Your task to perform on an android device: Open eBay Image 0: 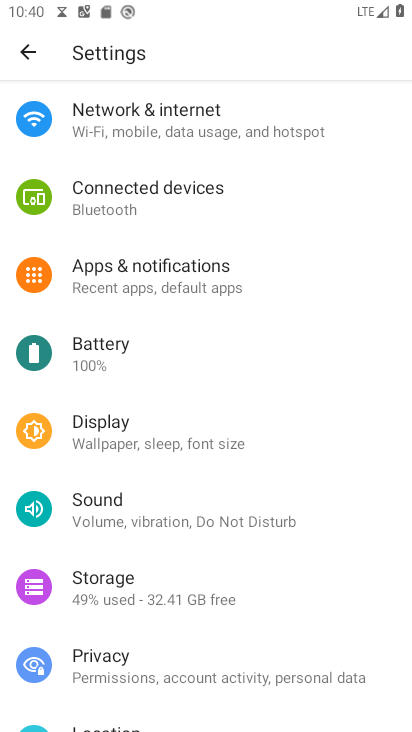
Step 0: drag from (211, 247) to (215, 193)
Your task to perform on an android device: Open eBay Image 1: 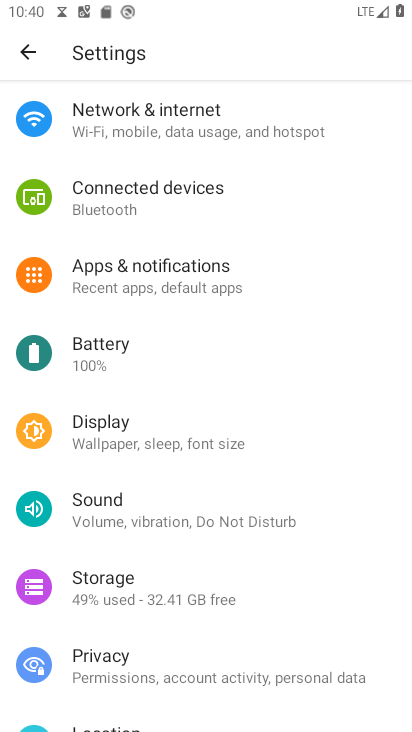
Step 1: press home button
Your task to perform on an android device: Open eBay Image 2: 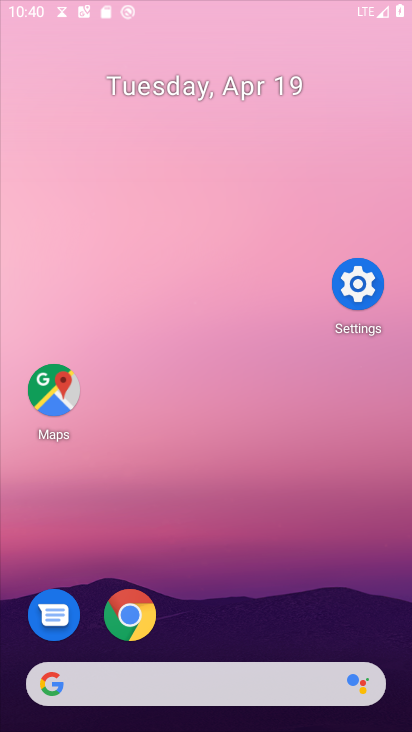
Step 2: drag from (196, 634) to (304, 169)
Your task to perform on an android device: Open eBay Image 3: 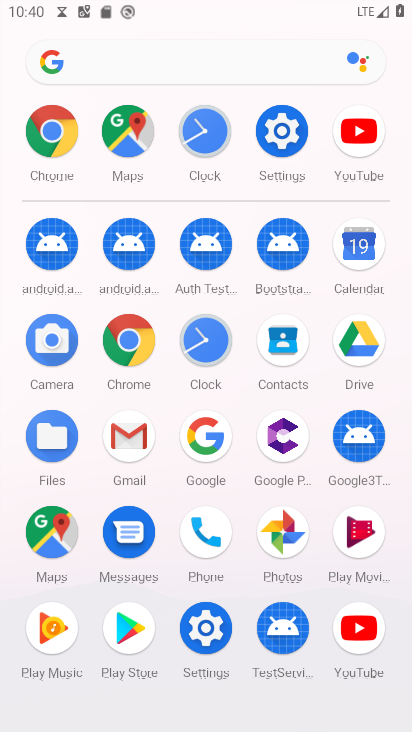
Step 3: click (132, 342)
Your task to perform on an android device: Open eBay Image 4: 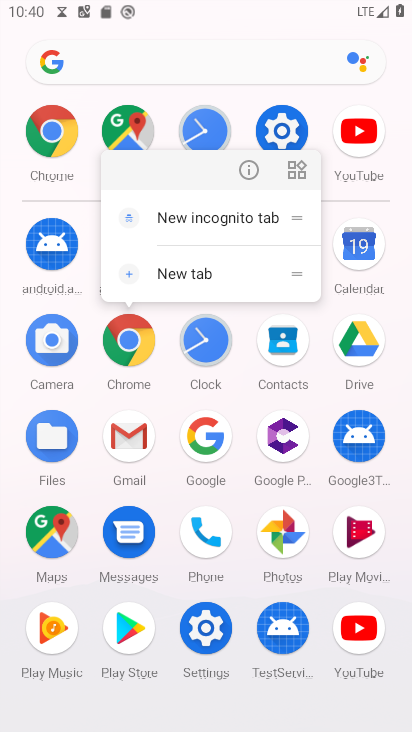
Step 4: click (237, 163)
Your task to perform on an android device: Open eBay Image 5: 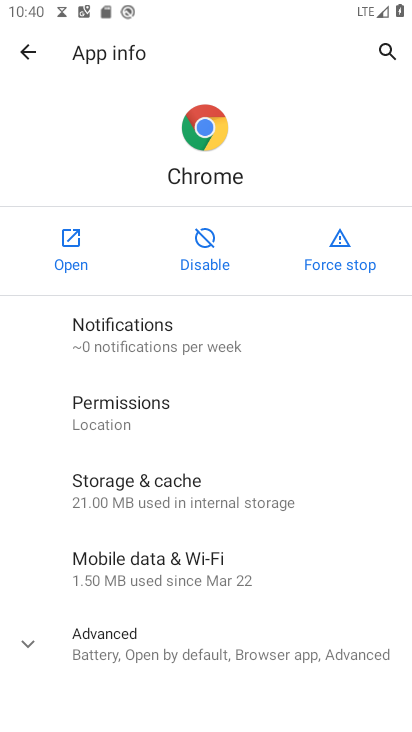
Step 5: click (69, 233)
Your task to perform on an android device: Open eBay Image 6: 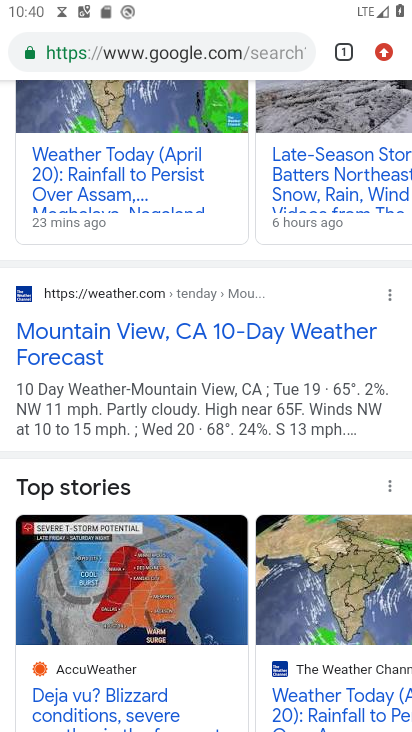
Step 6: drag from (246, 155) to (260, 597)
Your task to perform on an android device: Open eBay Image 7: 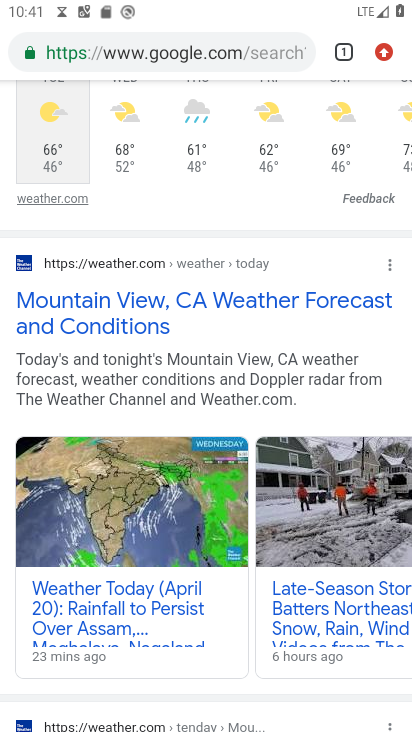
Step 7: drag from (233, 275) to (322, 729)
Your task to perform on an android device: Open eBay Image 8: 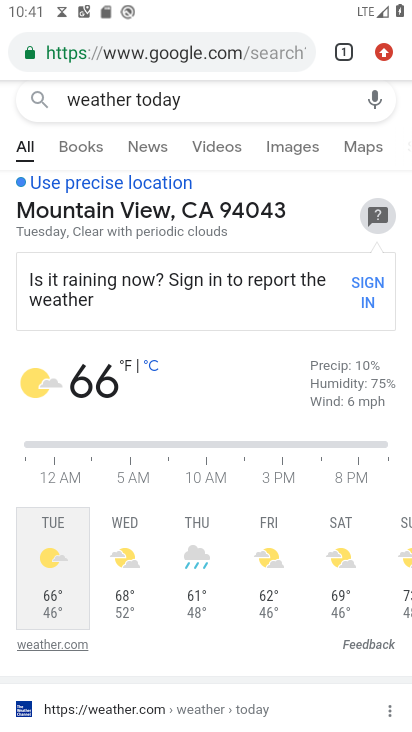
Step 8: click (256, 104)
Your task to perform on an android device: Open eBay Image 9: 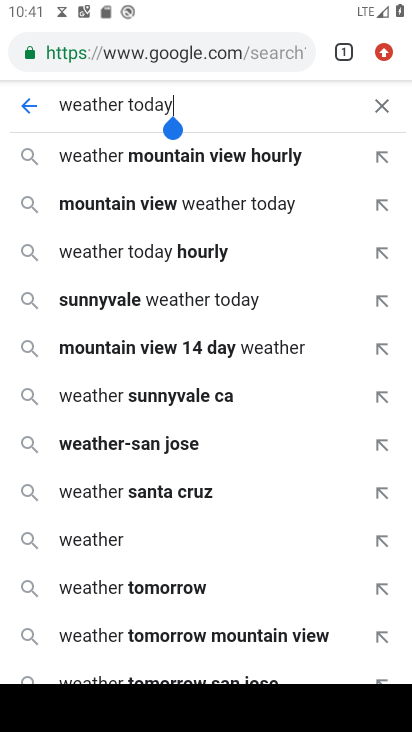
Step 9: click (379, 99)
Your task to perform on an android device: Open eBay Image 10: 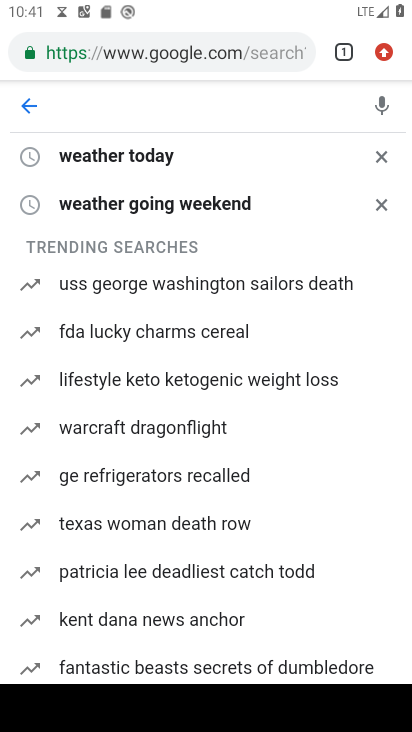
Step 10: type "ebay"
Your task to perform on an android device: Open eBay Image 11: 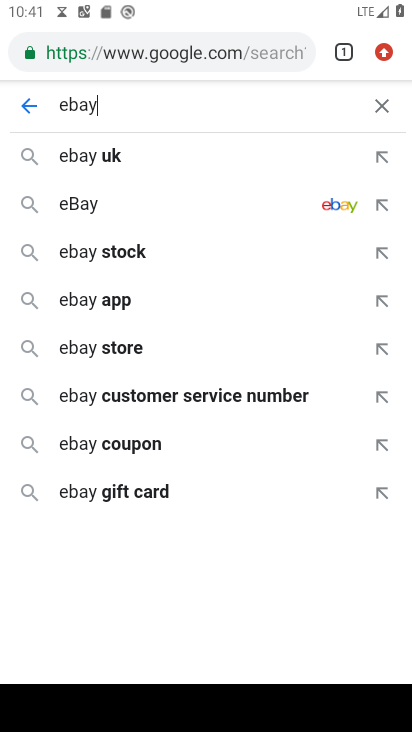
Step 11: click (124, 203)
Your task to perform on an android device: Open eBay Image 12: 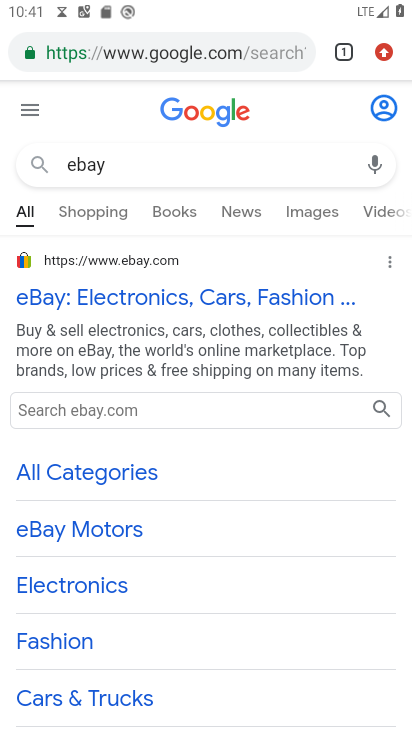
Step 12: task complete